Your task to perform on an android device: Open Android settings Image 0: 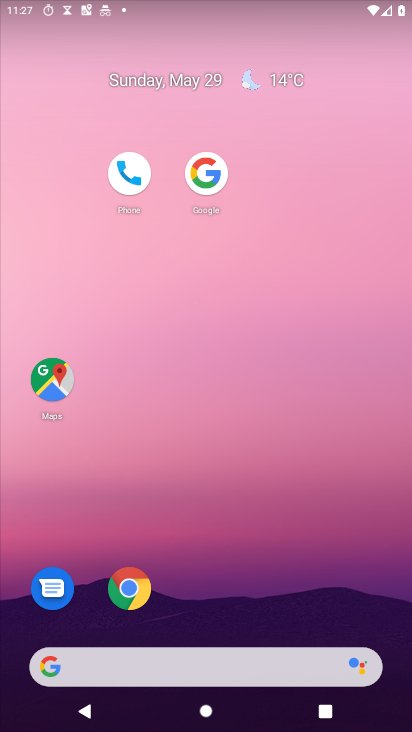
Step 0: drag from (296, 685) to (283, 246)
Your task to perform on an android device: Open Android settings Image 1: 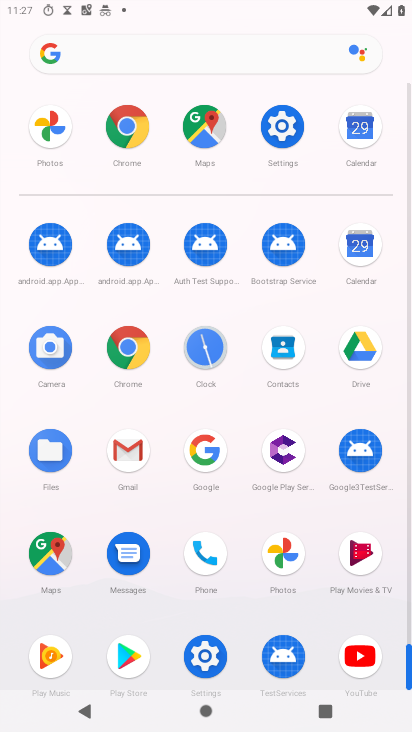
Step 1: click (277, 124)
Your task to perform on an android device: Open Android settings Image 2: 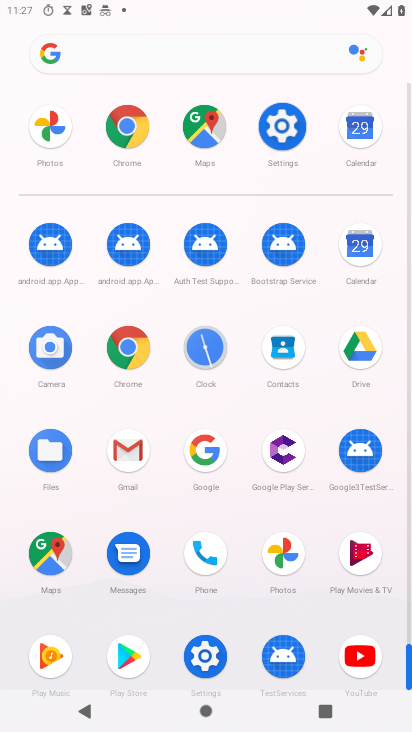
Step 2: click (276, 123)
Your task to perform on an android device: Open Android settings Image 3: 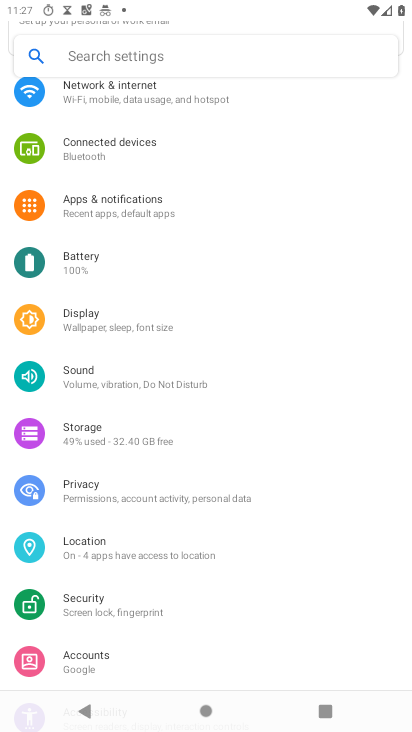
Step 3: drag from (69, 485) to (100, 193)
Your task to perform on an android device: Open Android settings Image 4: 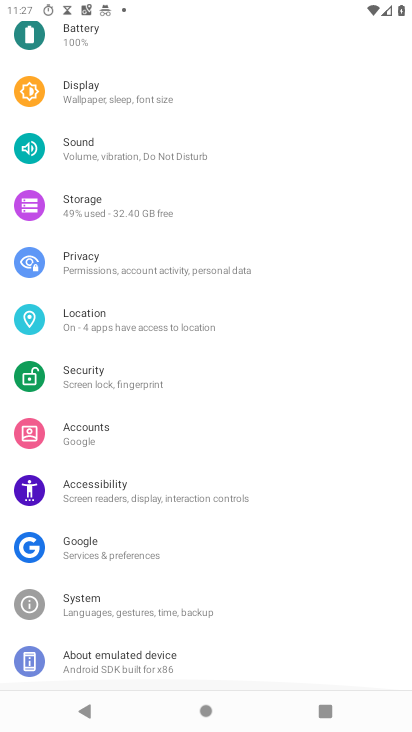
Step 4: drag from (116, 433) to (117, 93)
Your task to perform on an android device: Open Android settings Image 5: 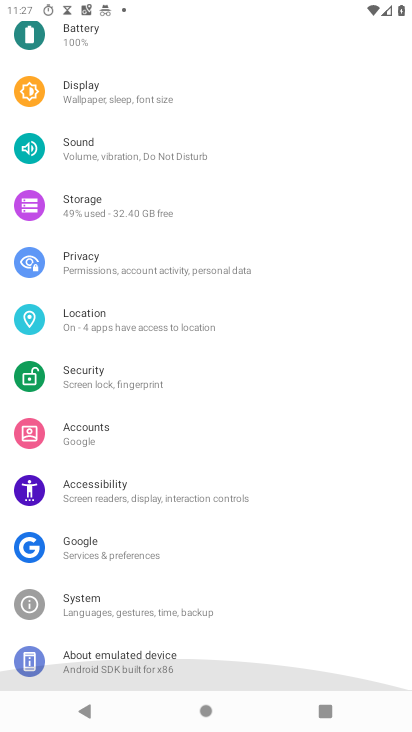
Step 5: drag from (139, 390) to (147, 150)
Your task to perform on an android device: Open Android settings Image 6: 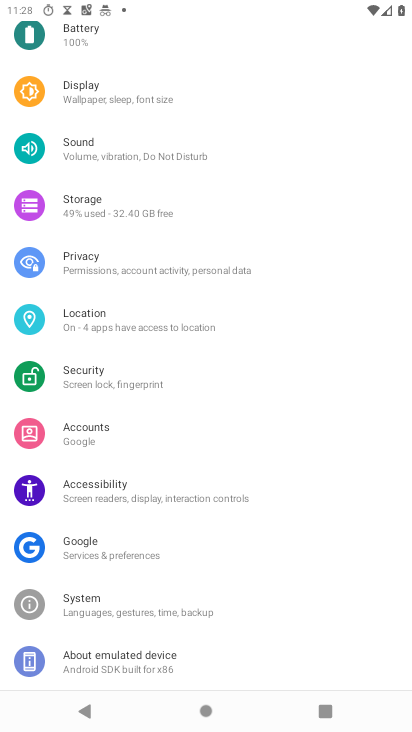
Step 6: drag from (160, 512) to (139, 240)
Your task to perform on an android device: Open Android settings Image 7: 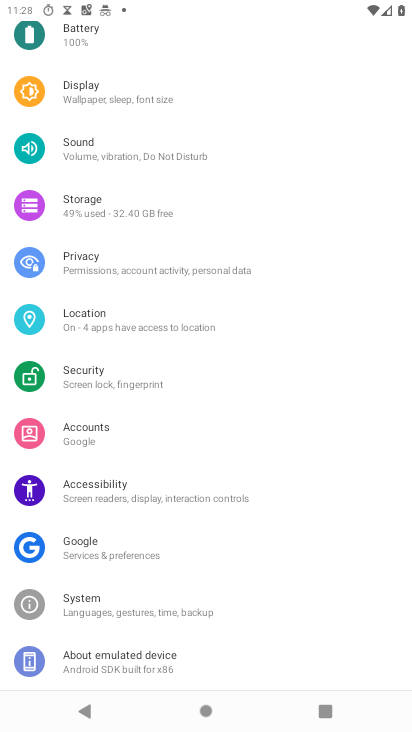
Step 7: click (139, 661)
Your task to perform on an android device: Open Android settings Image 8: 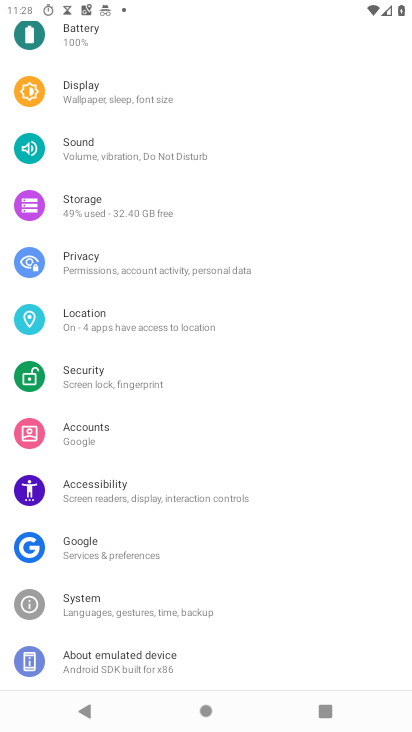
Step 8: click (140, 662)
Your task to perform on an android device: Open Android settings Image 9: 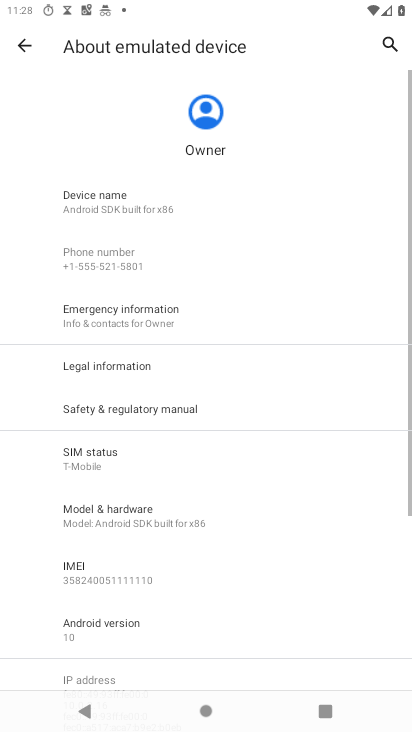
Step 9: click (141, 662)
Your task to perform on an android device: Open Android settings Image 10: 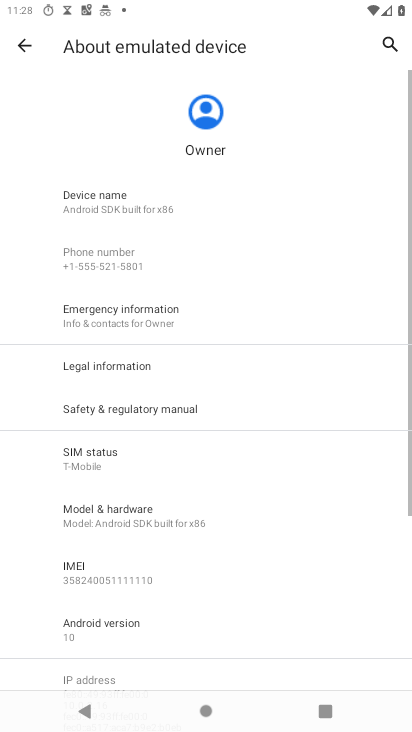
Step 10: click (141, 662)
Your task to perform on an android device: Open Android settings Image 11: 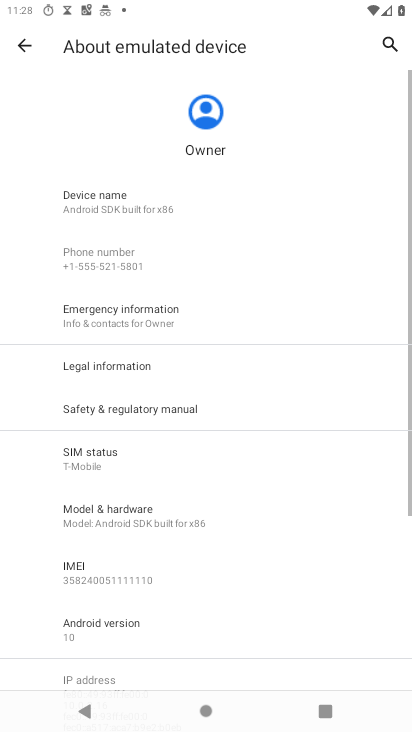
Step 11: task complete